Your task to perform on an android device: When is my next appointment? Image 0: 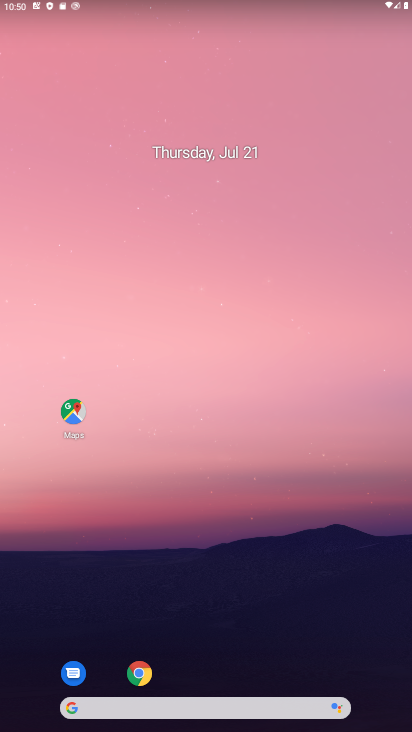
Step 0: drag from (218, 662) to (198, 299)
Your task to perform on an android device: When is my next appointment? Image 1: 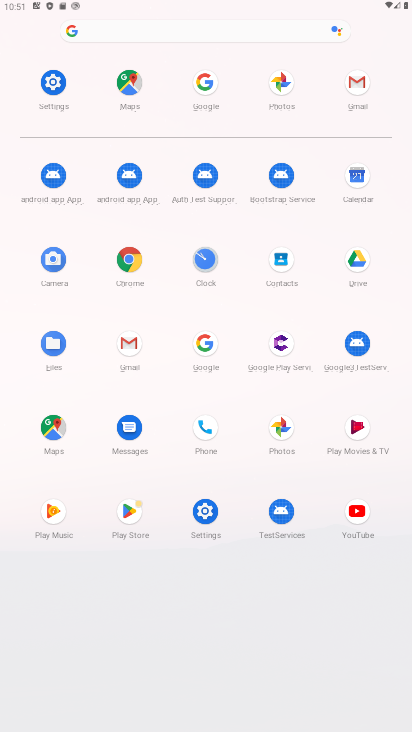
Step 1: click (358, 190)
Your task to perform on an android device: When is my next appointment? Image 2: 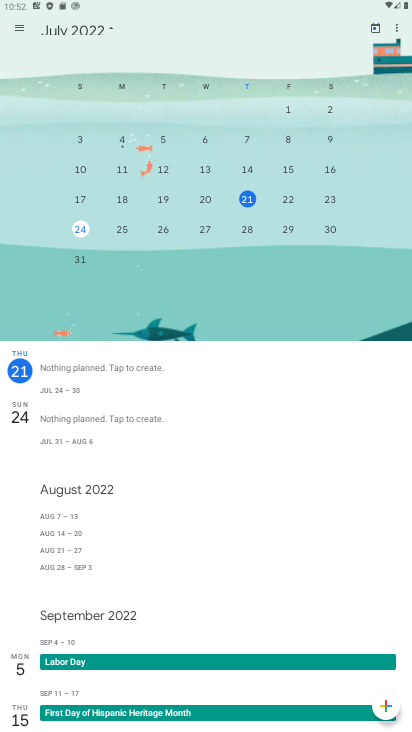
Step 2: task complete